Your task to perform on an android device: turn off data saver in the chrome app Image 0: 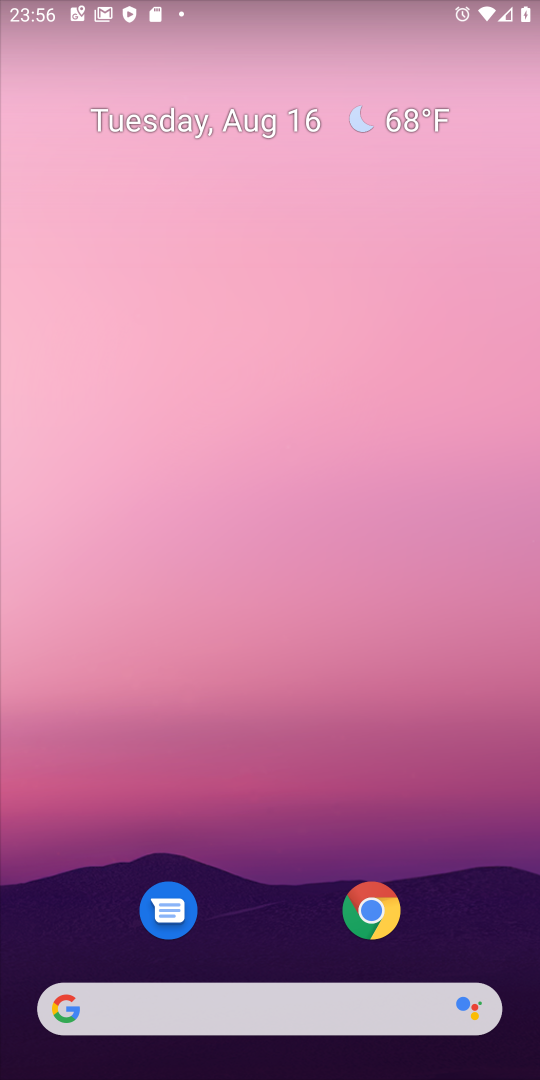
Step 0: drag from (381, 780) to (402, 80)
Your task to perform on an android device: turn off data saver in the chrome app Image 1: 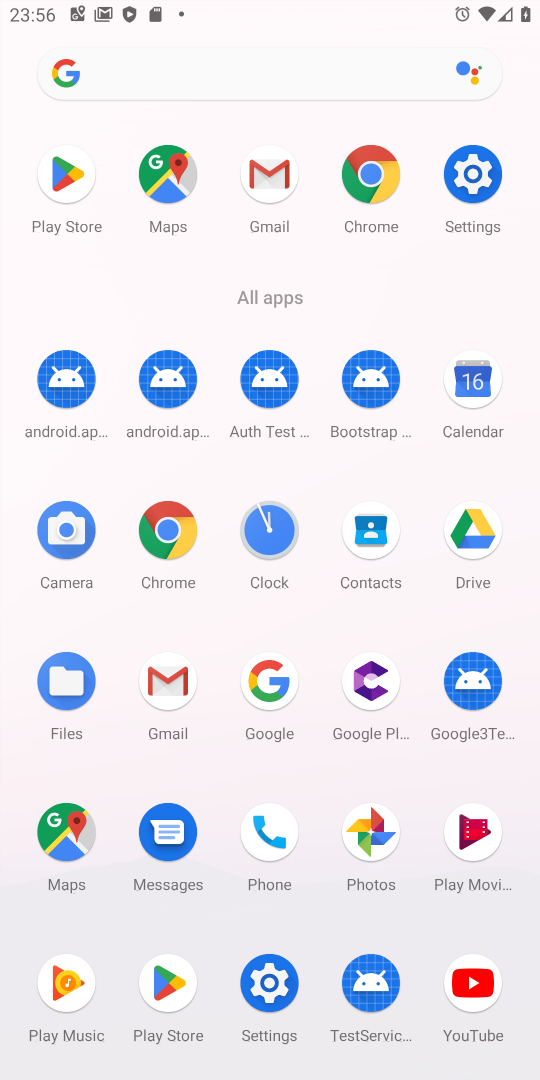
Step 1: click (167, 533)
Your task to perform on an android device: turn off data saver in the chrome app Image 2: 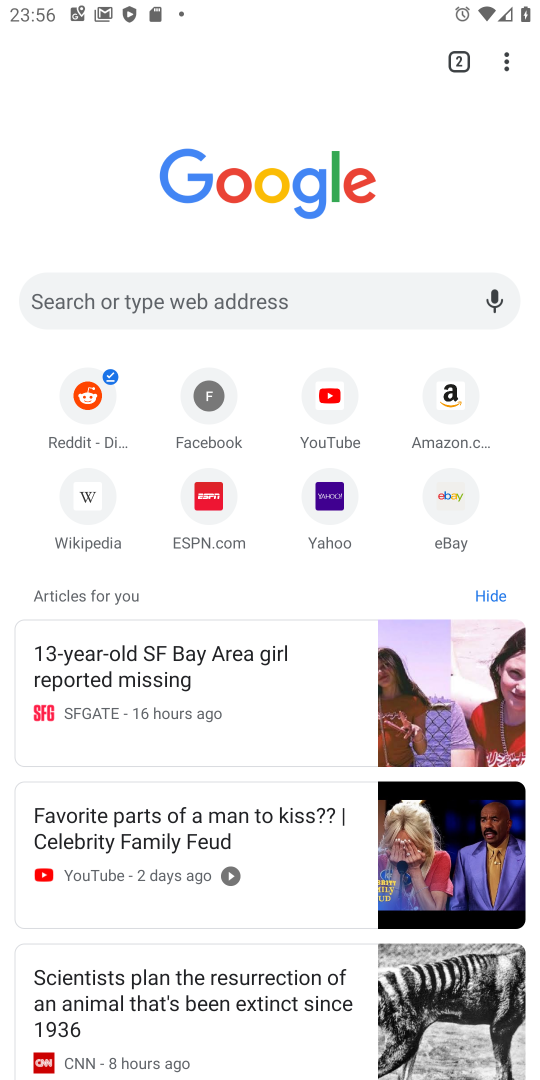
Step 2: drag from (506, 51) to (305, 574)
Your task to perform on an android device: turn off data saver in the chrome app Image 3: 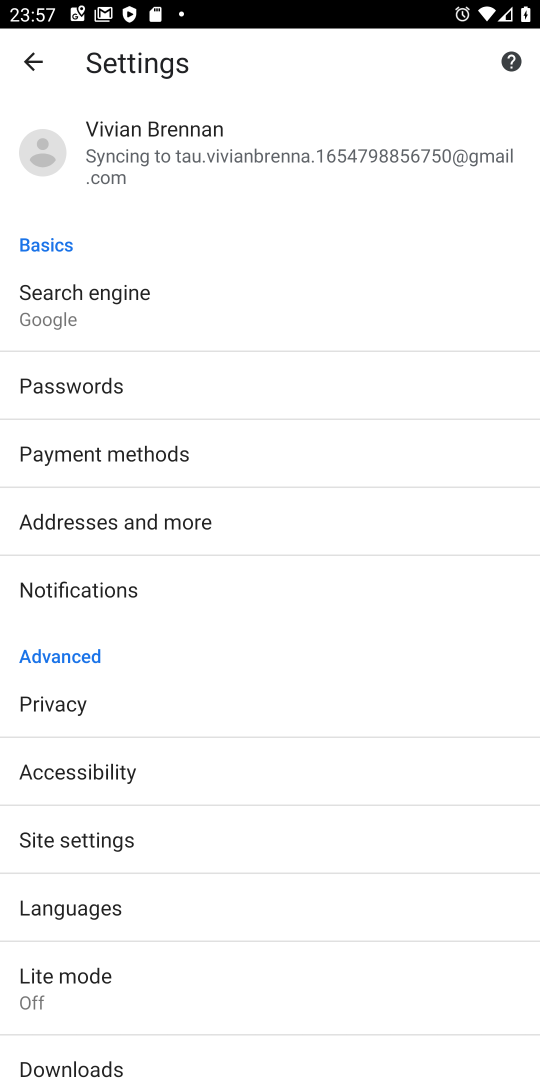
Step 3: drag from (235, 920) to (392, 8)
Your task to perform on an android device: turn off data saver in the chrome app Image 4: 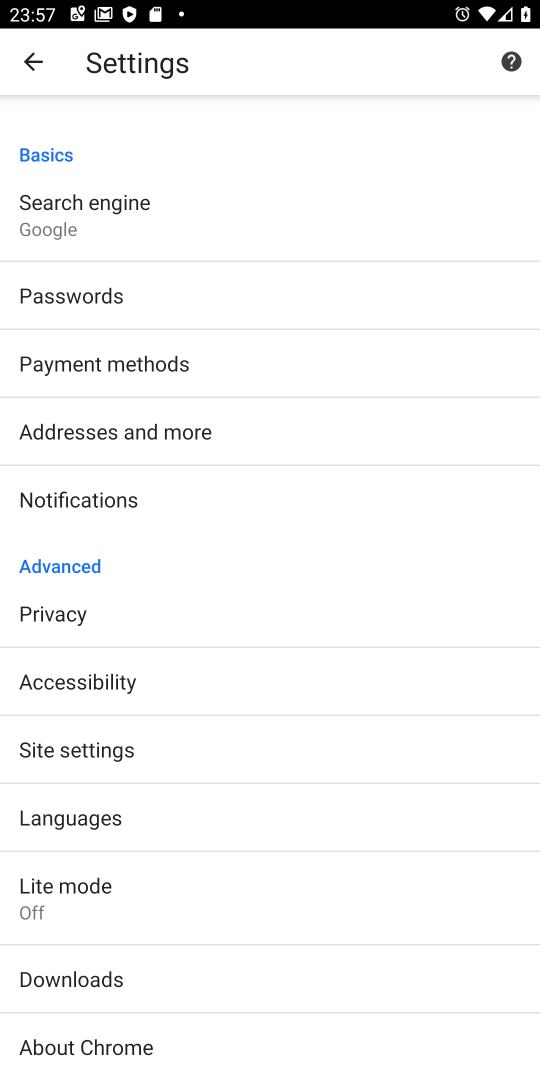
Step 4: click (67, 903)
Your task to perform on an android device: turn off data saver in the chrome app Image 5: 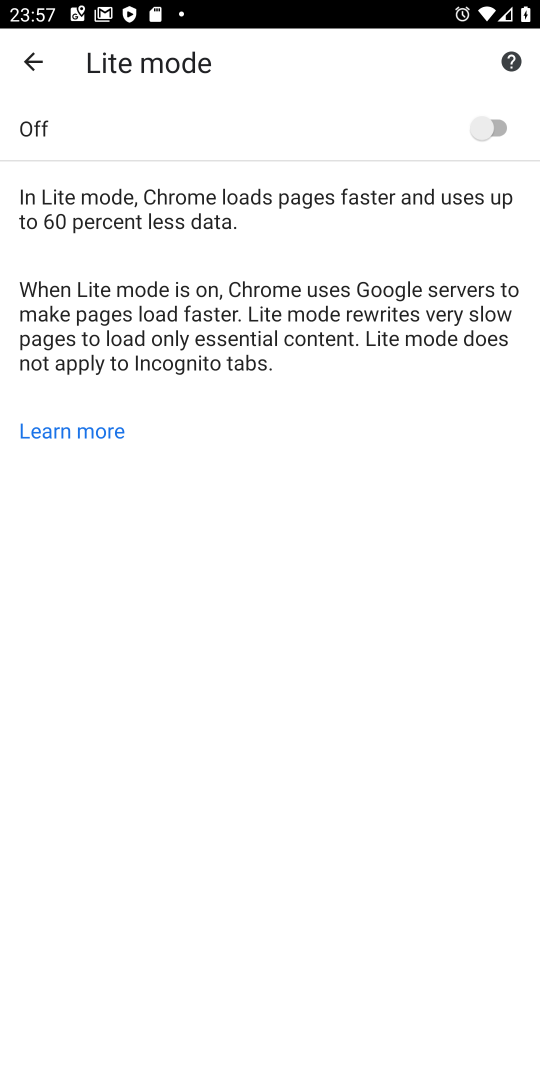
Step 5: task complete